Your task to perform on an android device: Open accessibility settings Image 0: 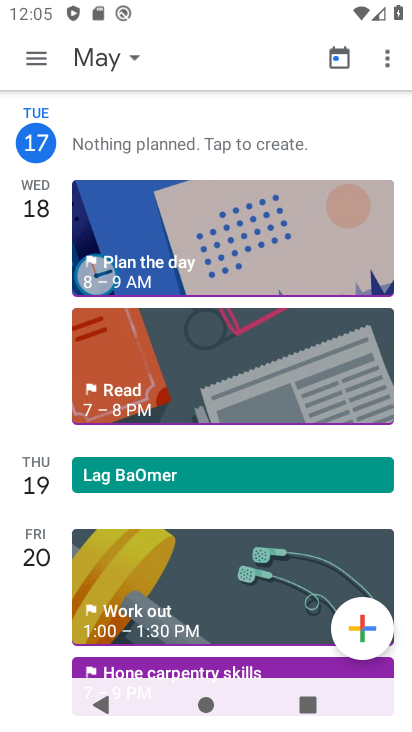
Step 0: press home button
Your task to perform on an android device: Open accessibility settings Image 1: 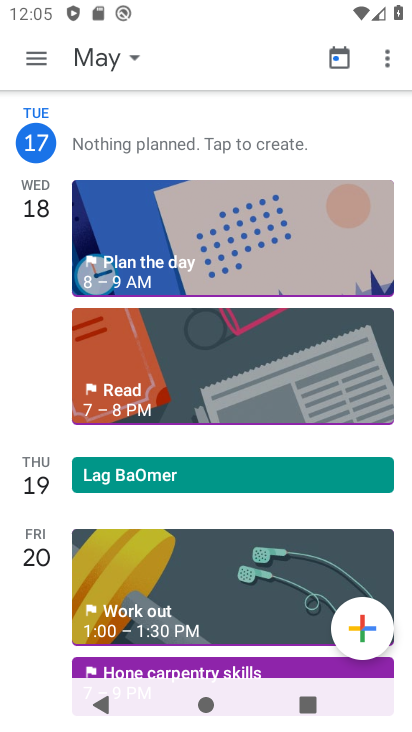
Step 1: press home button
Your task to perform on an android device: Open accessibility settings Image 2: 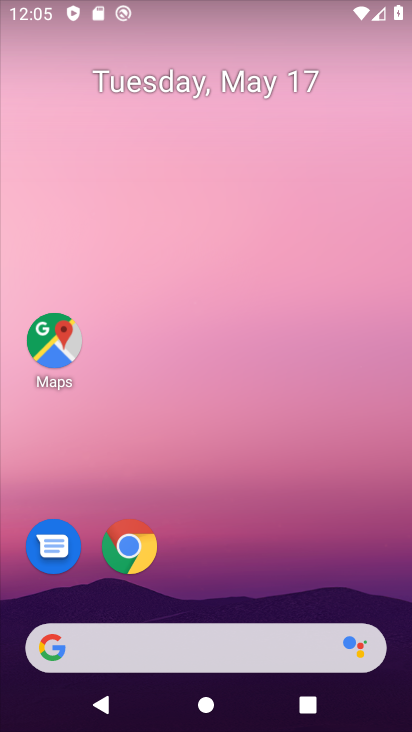
Step 2: drag from (307, 5) to (315, 595)
Your task to perform on an android device: Open accessibility settings Image 3: 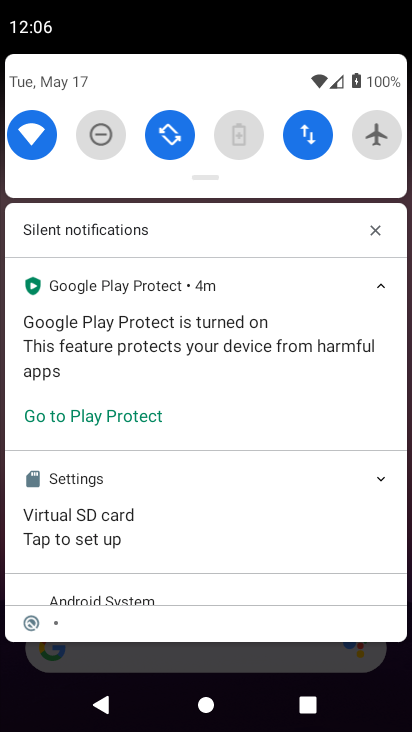
Step 3: drag from (248, 646) to (290, 119)
Your task to perform on an android device: Open accessibility settings Image 4: 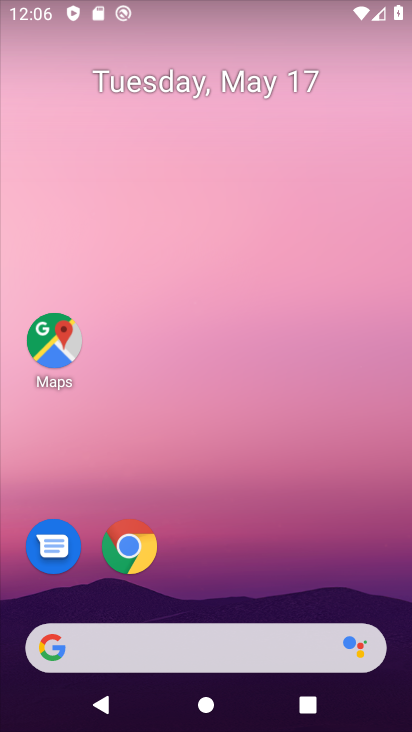
Step 4: drag from (215, 596) to (260, 79)
Your task to perform on an android device: Open accessibility settings Image 5: 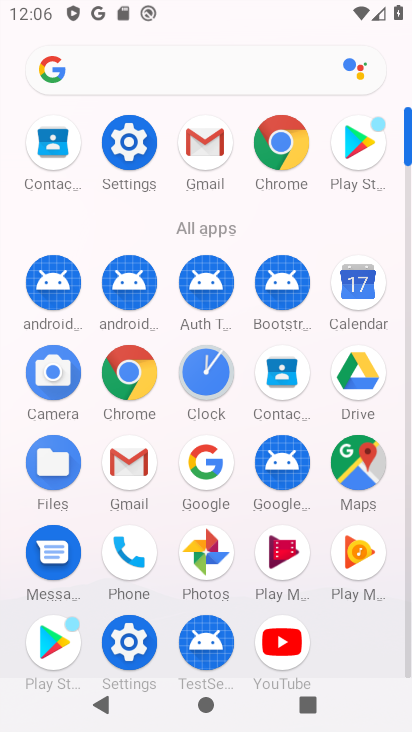
Step 5: click (127, 642)
Your task to perform on an android device: Open accessibility settings Image 6: 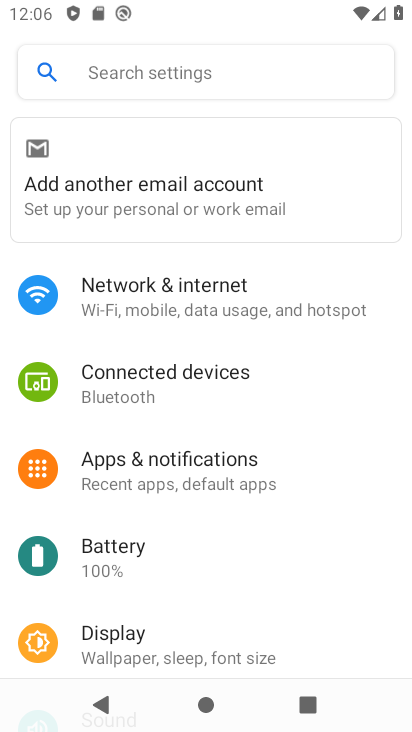
Step 6: drag from (196, 634) to (261, 80)
Your task to perform on an android device: Open accessibility settings Image 7: 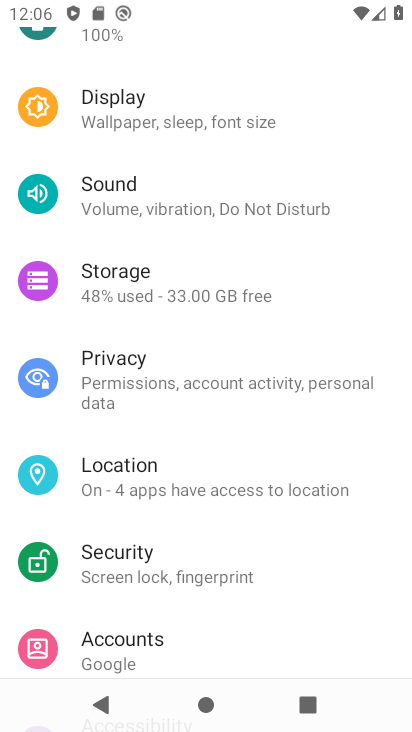
Step 7: drag from (210, 630) to (271, 0)
Your task to perform on an android device: Open accessibility settings Image 8: 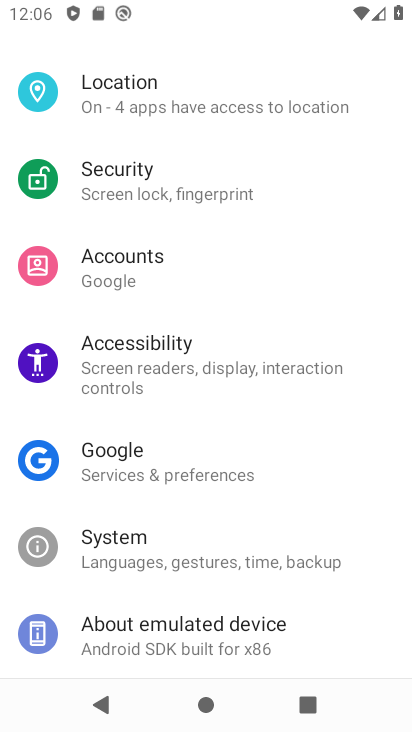
Step 8: click (195, 351)
Your task to perform on an android device: Open accessibility settings Image 9: 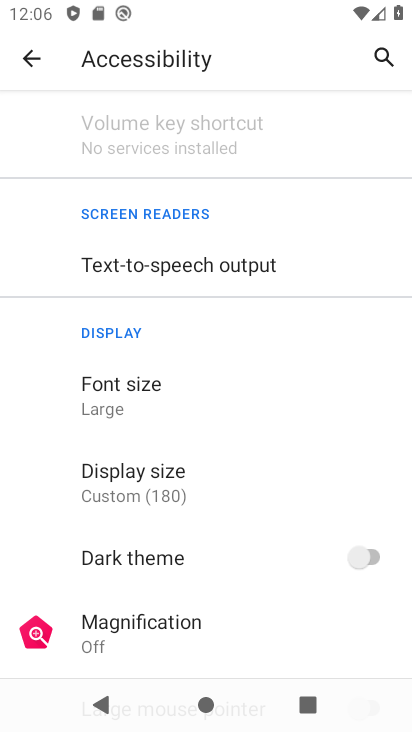
Step 9: click (250, 166)
Your task to perform on an android device: Open accessibility settings Image 10: 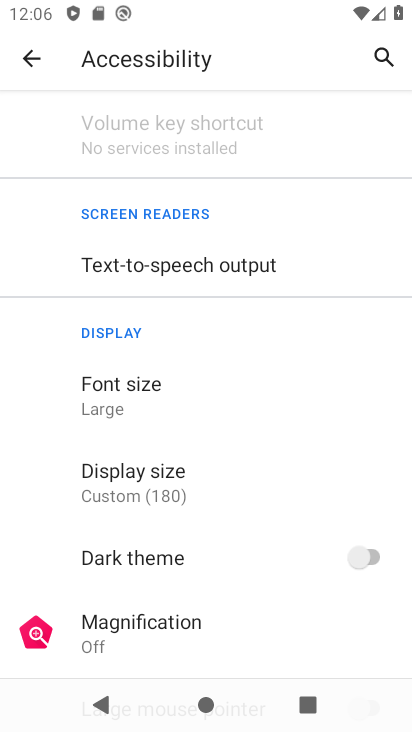
Step 10: task complete